Your task to perform on an android device: Show me popular videos on Youtube Image 0: 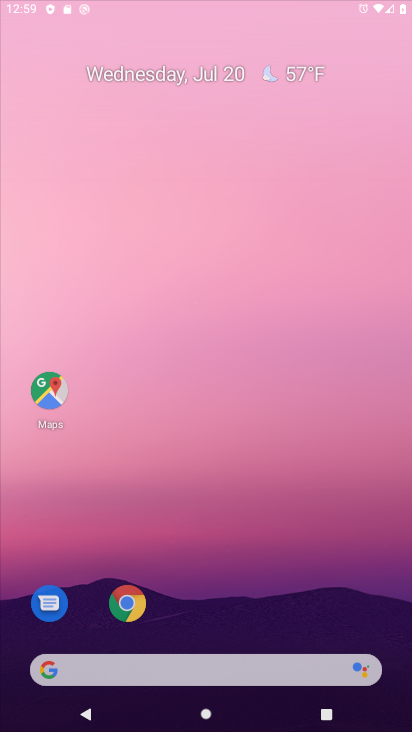
Step 0: click (232, 119)
Your task to perform on an android device: Show me popular videos on Youtube Image 1: 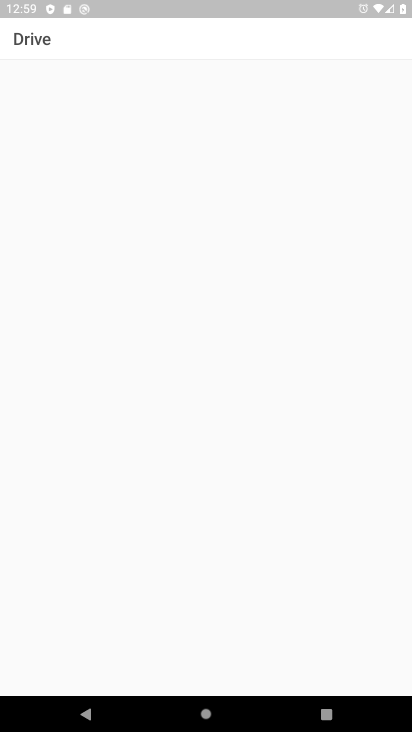
Step 1: press home button
Your task to perform on an android device: Show me popular videos on Youtube Image 2: 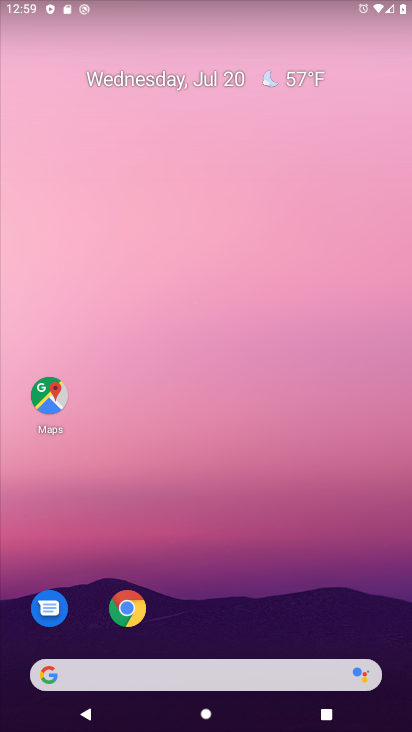
Step 2: drag from (249, 712) to (188, 192)
Your task to perform on an android device: Show me popular videos on Youtube Image 3: 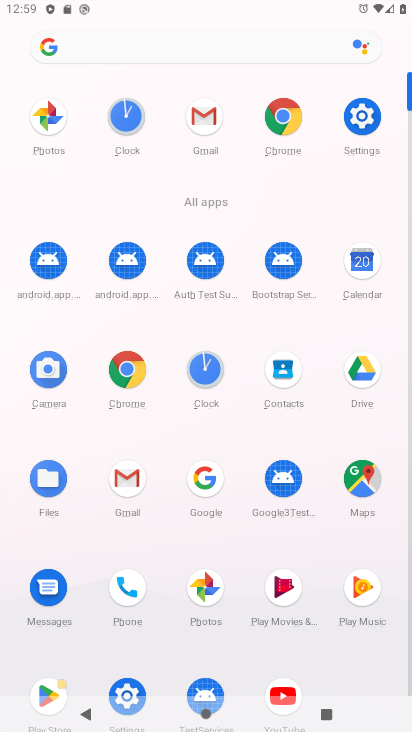
Step 3: click (286, 684)
Your task to perform on an android device: Show me popular videos on Youtube Image 4: 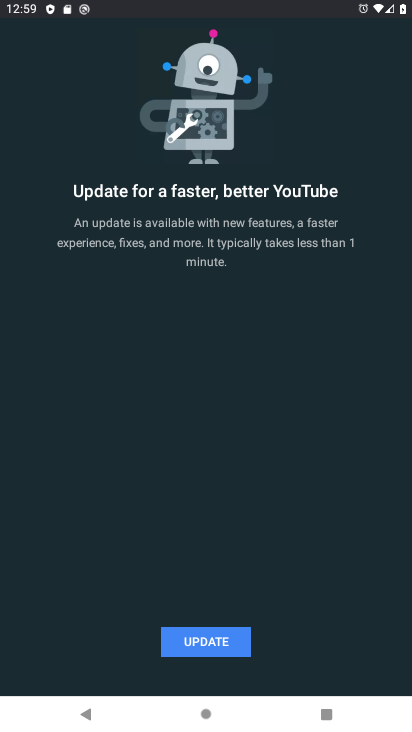
Step 4: click (165, 639)
Your task to perform on an android device: Show me popular videos on Youtube Image 5: 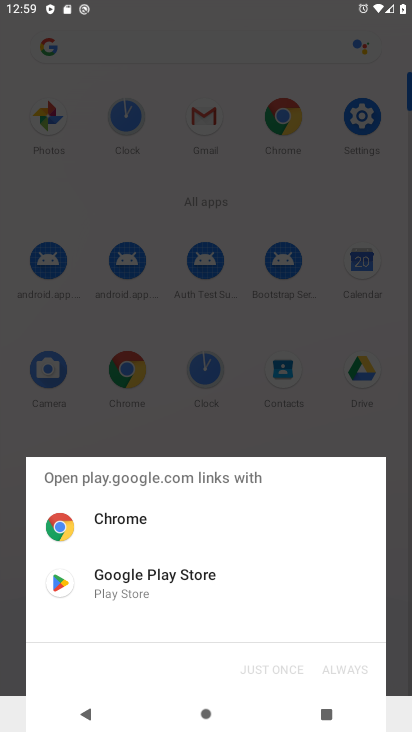
Step 5: click (97, 581)
Your task to perform on an android device: Show me popular videos on Youtube Image 6: 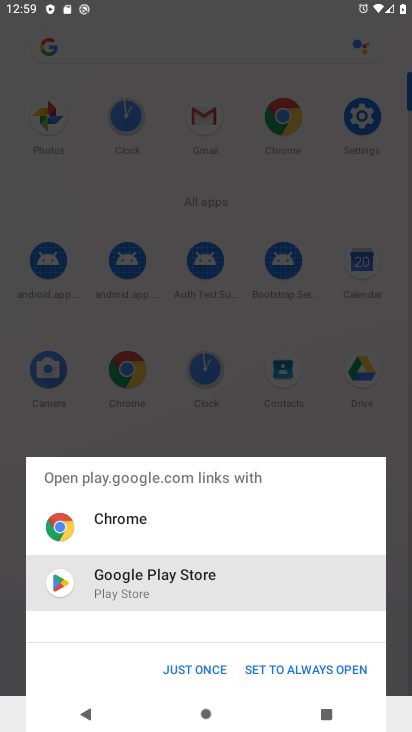
Step 6: click (185, 670)
Your task to perform on an android device: Show me popular videos on Youtube Image 7: 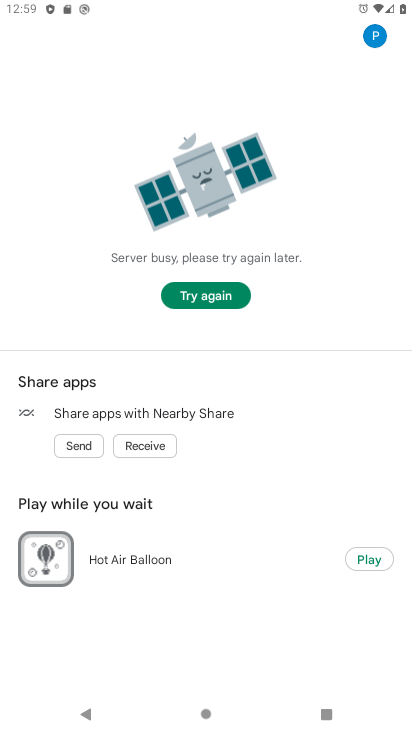
Step 7: click (221, 295)
Your task to perform on an android device: Show me popular videos on Youtube Image 8: 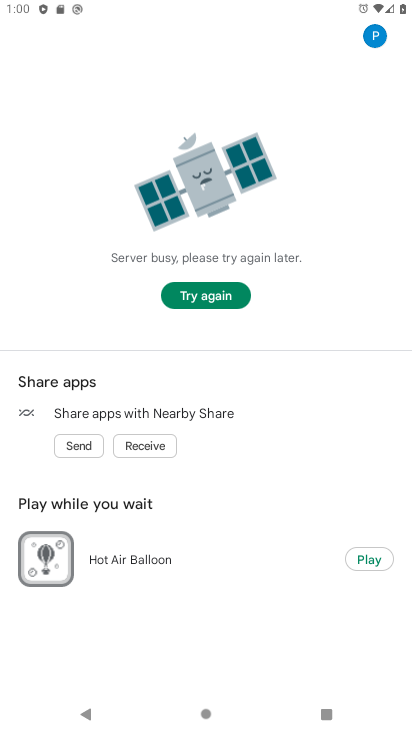
Step 8: task complete